Your task to perform on an android device: open app "ColorNote Notepad Notes" (install if not already installed) and enter user name: "unbridled@gmail.com" and password: "regularly" Image 0: 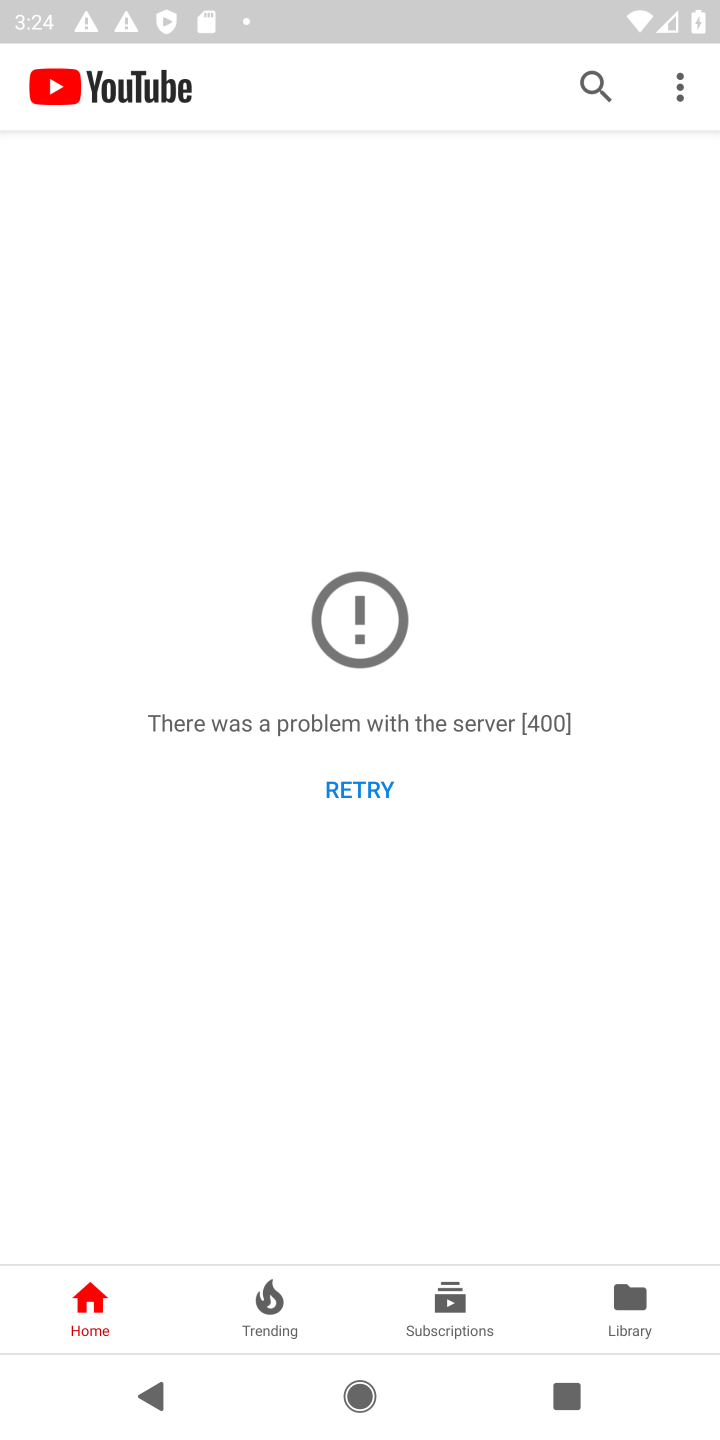
Step 0: press home button
Your task to perform on an android device: open app "ColorNote Notepad Notes" (install if not already installed) and enter user name: "unbridled@gmail.com" and password: "regularly" Image 1: 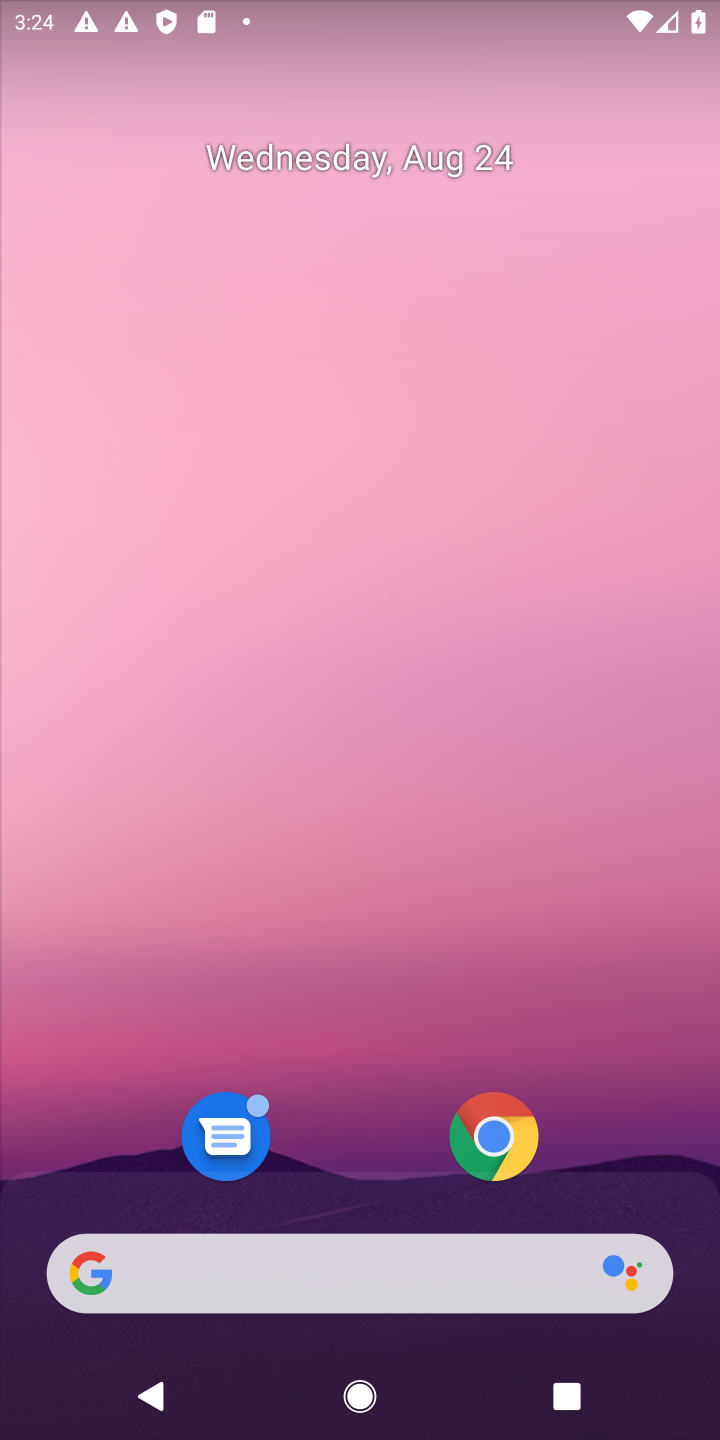
Step 1: drag from (339, 10) to (431, 101)
Your task to perform on an android device: open app "ColorNote Notepad Notes" (install if not already installed) and enter user name: "unbridled@gmail.com" and password: "regularly" Image 2: 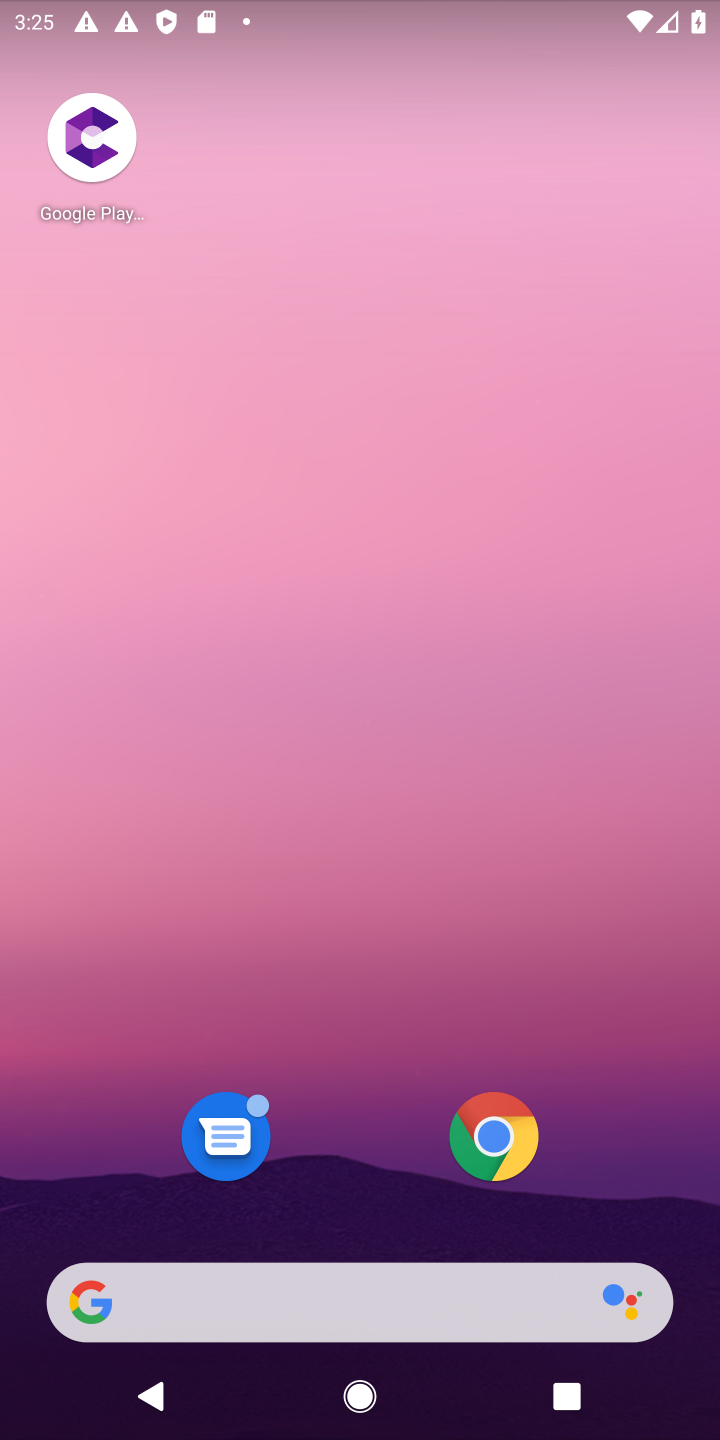
Step 2: drag from (293, 10) to (293, 125)
Your task to perform on an android device: open app "ColorNote Notepad Notes" (install if not already installed) and enter user name: "unbridled@gmail.com" and password: "regularly" Image 3: 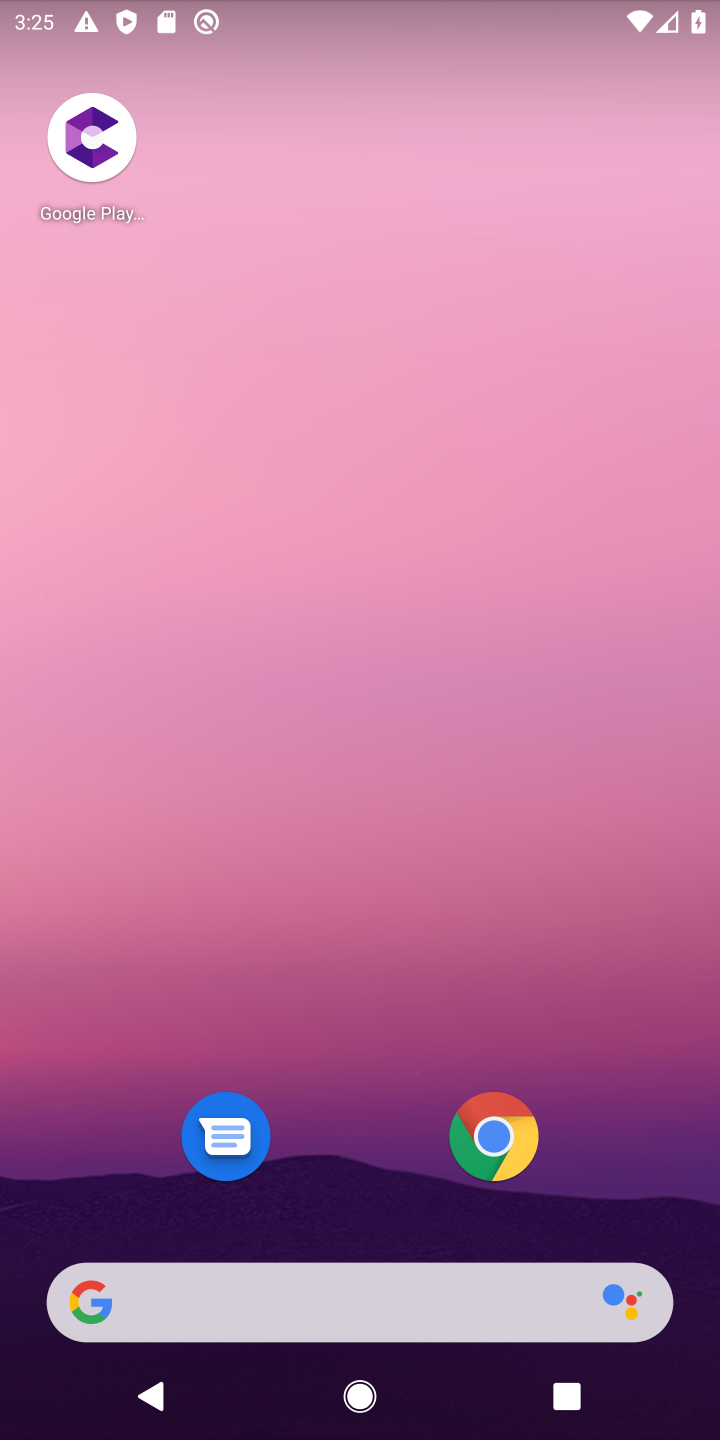
Step 3: drag from (326, 38) to (359, 144)
Your task to perform on an android device: open app "ColorNote Notepad Notes" (install if not already installed) and enter user name: "unbridled@gmail.com" and password: "regularly" Image 4: 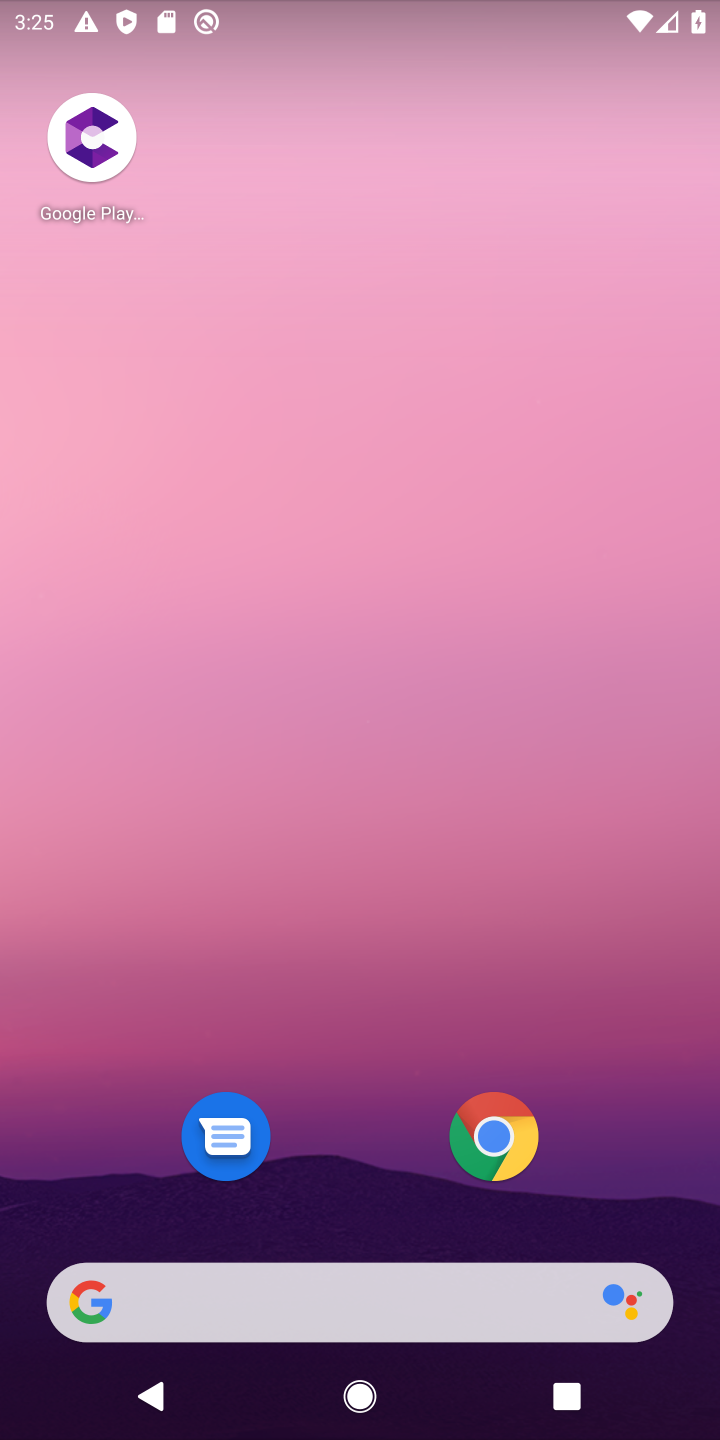
Step 4: drag from (338, 120) to (328, 248)
Your task to perform on an android device: open app "ColorNote Notepad Notes" (install if not already installed) and enter user name: "unbridled@gmail.com" and password: "regularly" Image 5: 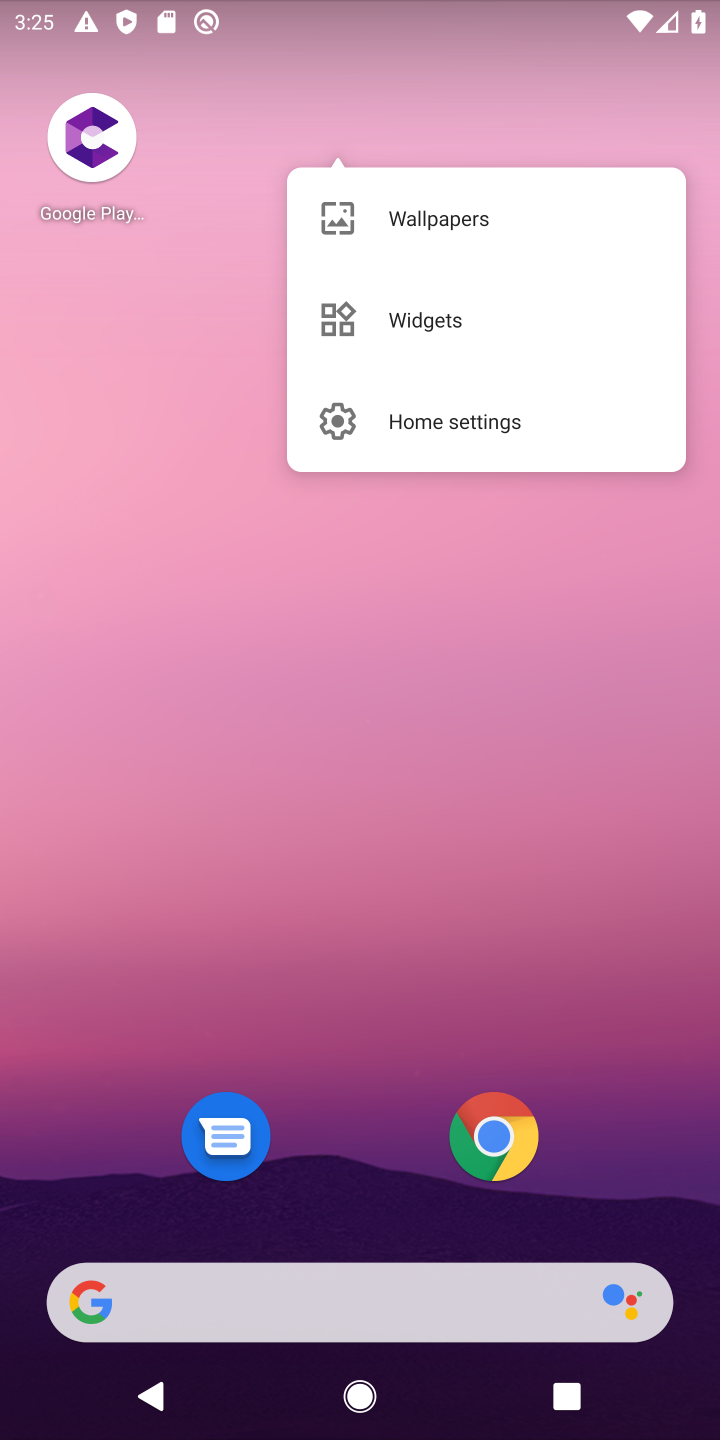
Step 5: click (379, 1205)
Your task to perform on an android device: open app "ColorNote Notepad Notes" (install if not already installed) and enter user name: "unbridled@gmail.com" and password: "regularly" Image 6: 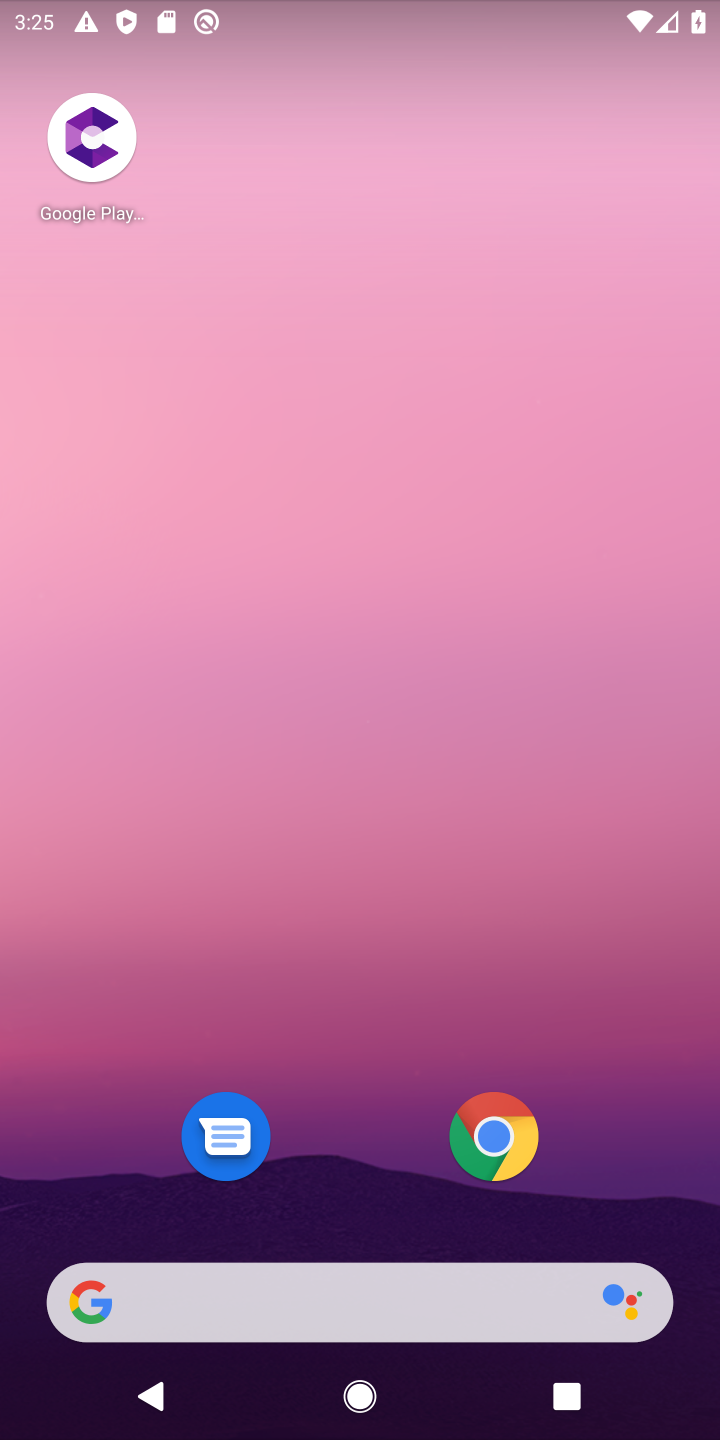
Step 6: drag from (379, 1179) to (367, 96)
Your task to perform on an android device: open app "ColorNote Notepad Notes" (install if not already installed) and enter user name: "unbridled@gmail.com" and password: "regularly" Image 7: 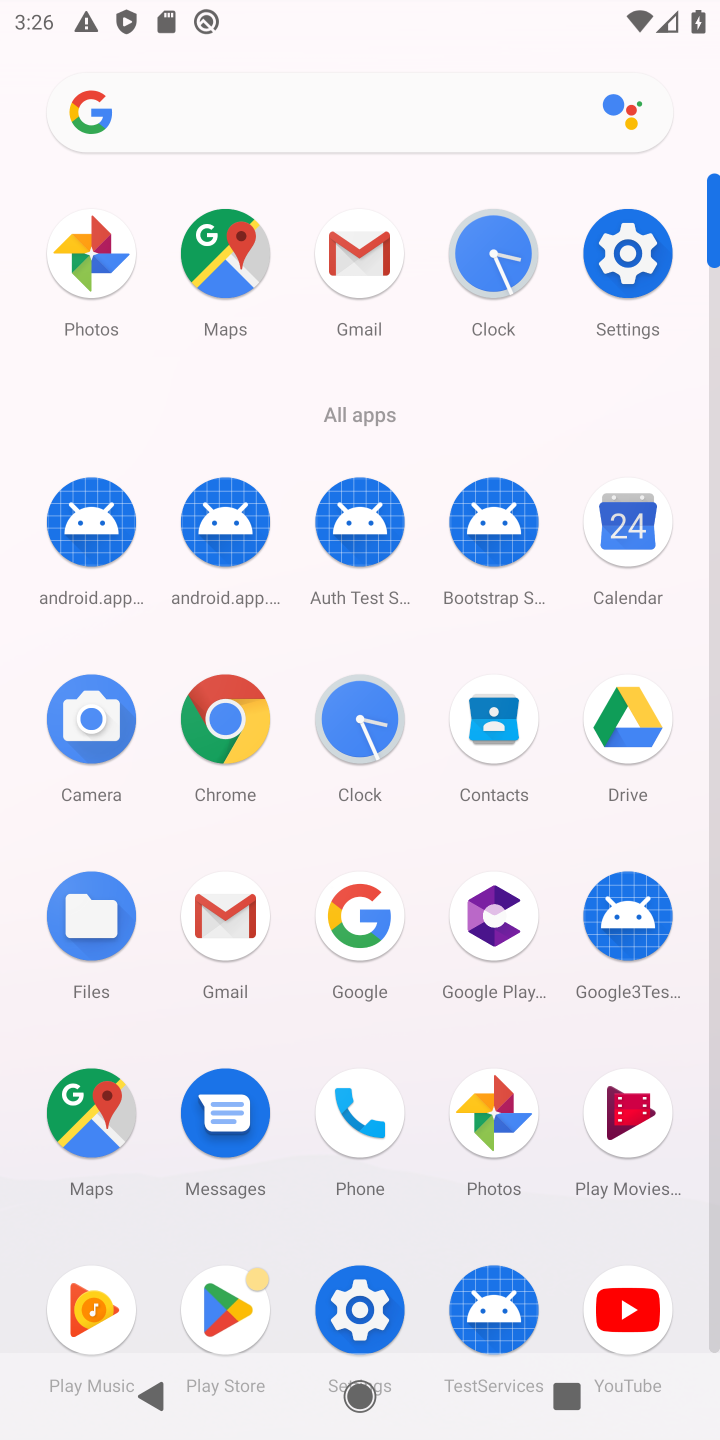
Step 7: click (203, 1297)
Your task to perform on an android device: open app "ColorNote Notepad Notes" (install if not already installed) and enter user name: "unbridled@gmail.com" and password: "regularly" Image 8: 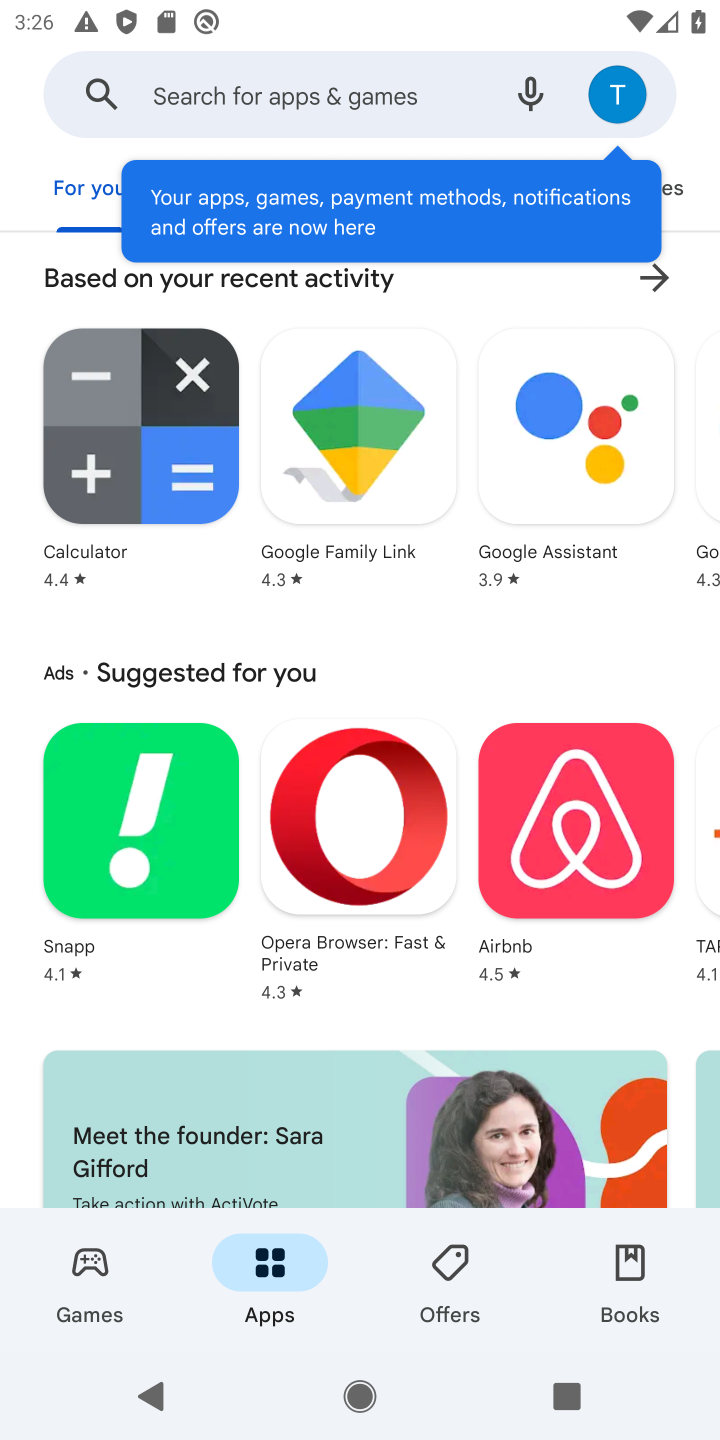
Step 8: click (359, 65)
Your task to perform on an android device: open app "ColorNote Notepad Notes" (install if not already installed) and enter user name: "unbridled@gmail.com" and password: "regularly" Image 9: 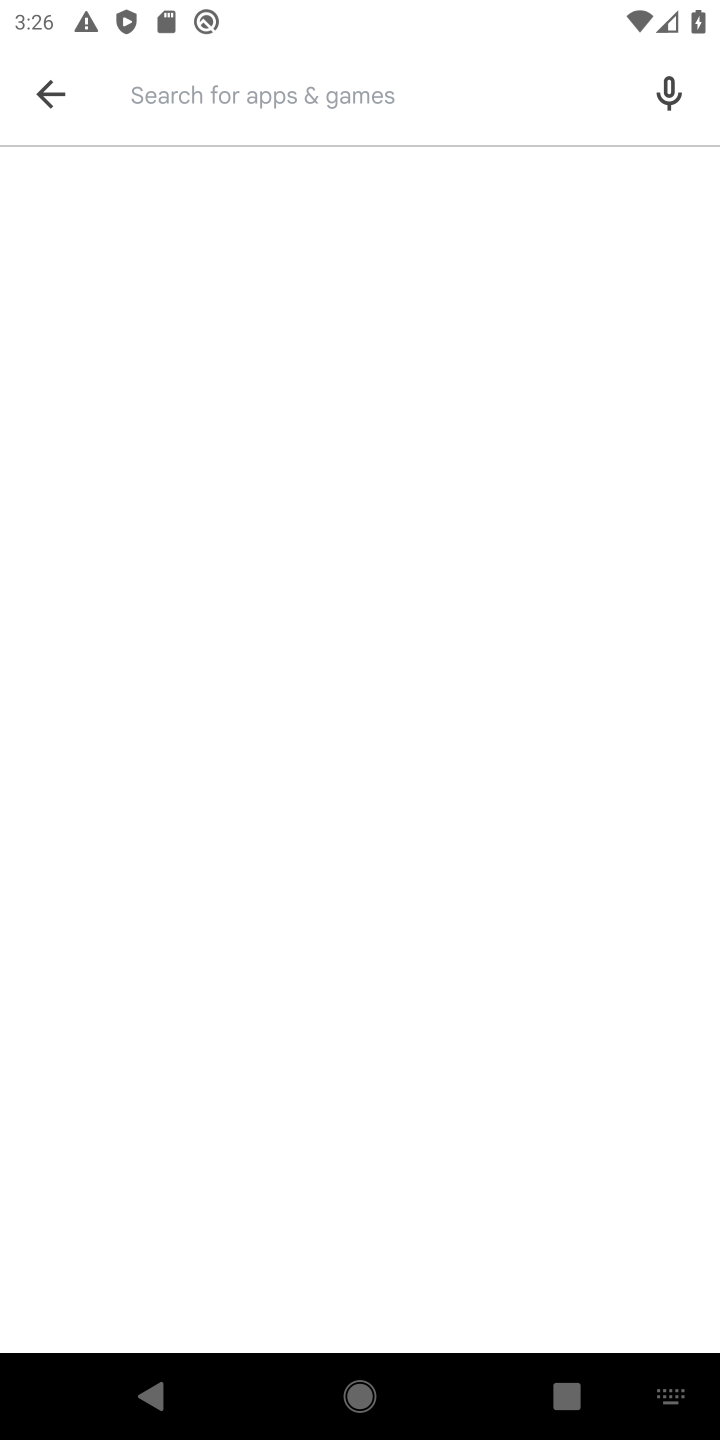
Step 9: type "ColorNote Notepad Notes"
Your task to perform on an android device: open app "ColorNote Notepad Notes" (install if not already installed) and enter user name: "unbridled@gmail.com" and password: "regularly" Image 10: 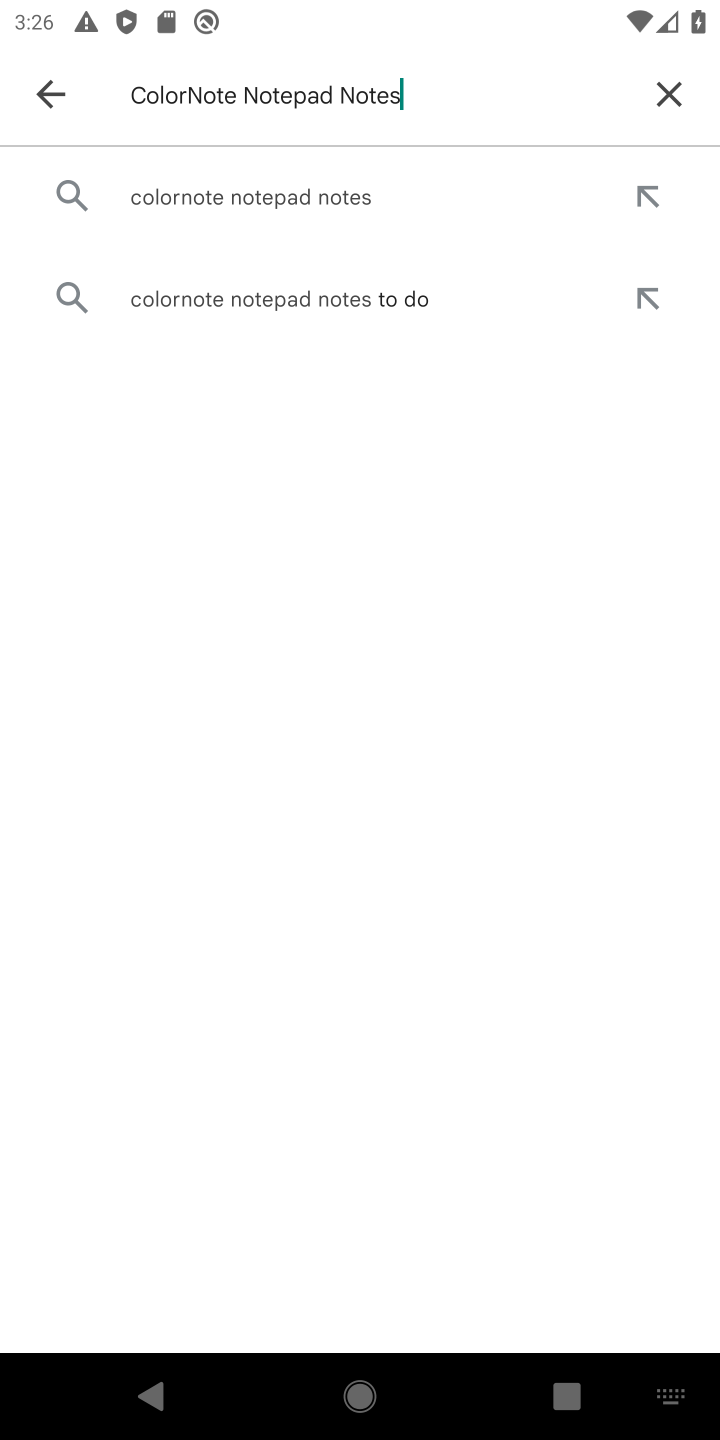
Step 10: click (252, 190)
Your task to perform on an android device: open app "ColorNote Notepad Notes" (install if not already installed) and enter user name: "unbridled@gmail.com" and password: "regularly" Image 11: 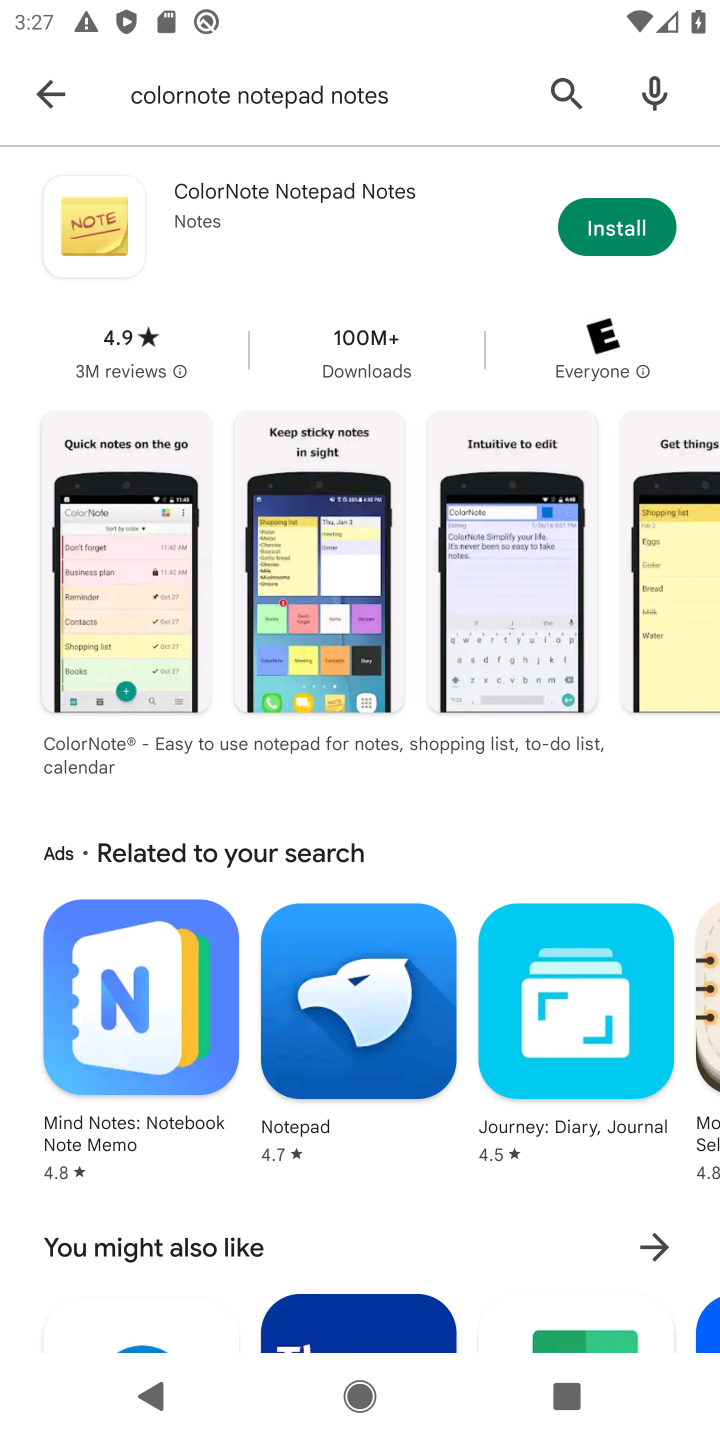
Step 11: click (623, 238)
Your task to perform on an android device: open app "ColorNote Notepad Notes" (install if not already installed) and enter user name: "unbridled@gmail.com" and password: "regularly" Image 12: 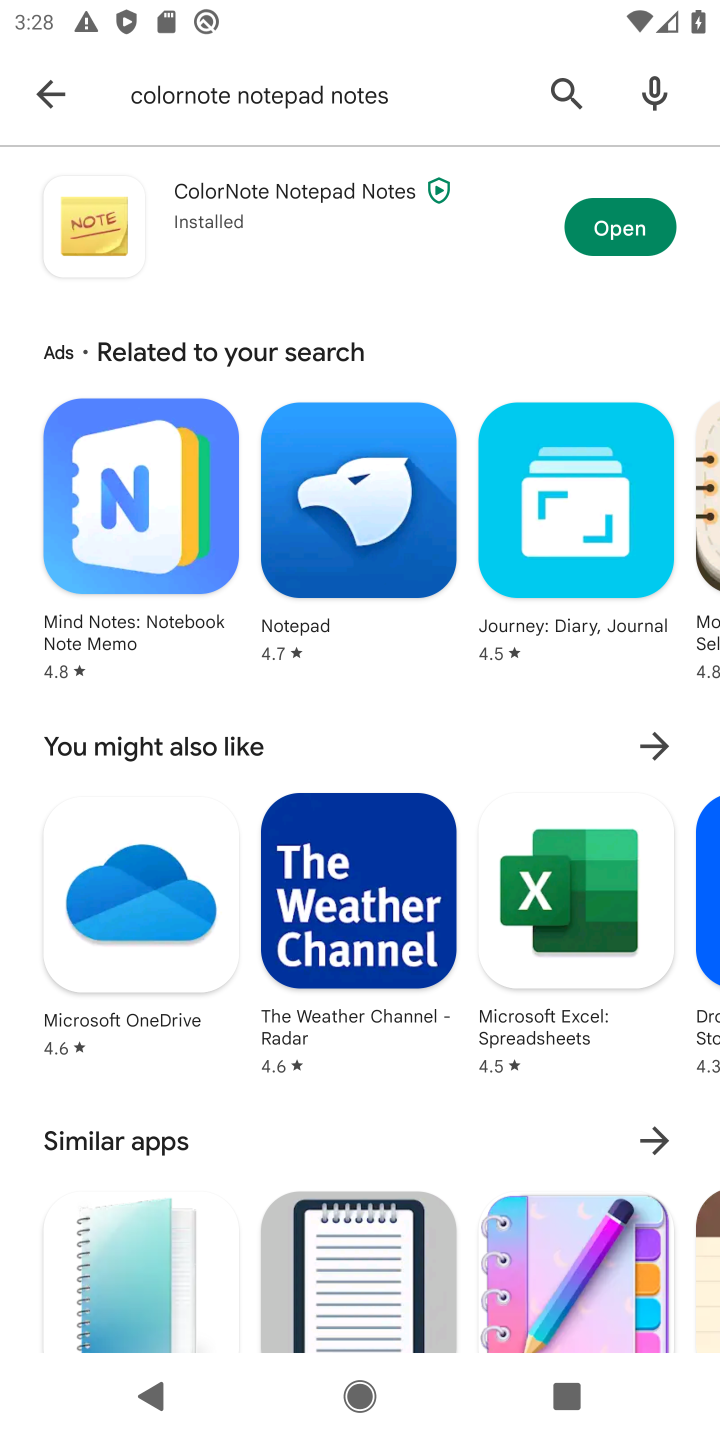
Step 12: click (603, 233)
Your task to perform on an android device: open app "ColorNote Notepad Notes" (install if not already installed) and enter user name: "unbridled@gmail.com" and password: "regularly" Image 13: 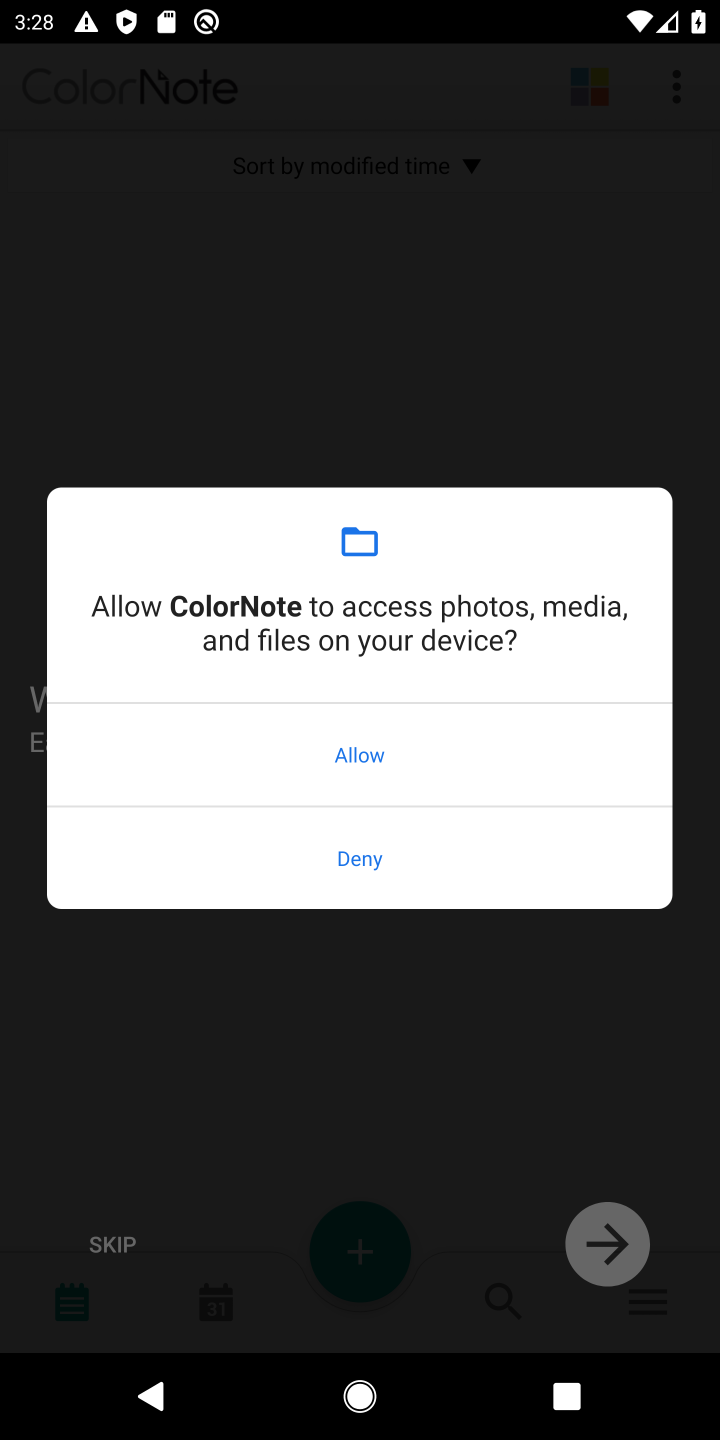
Step 13: click (349, 742)
Your task to perform on an android device: open app "ColorNote Notepad Notes" (install if not already installed) and enter user name: "unbridled@gmail.com" and password: "regularly" Image 14: 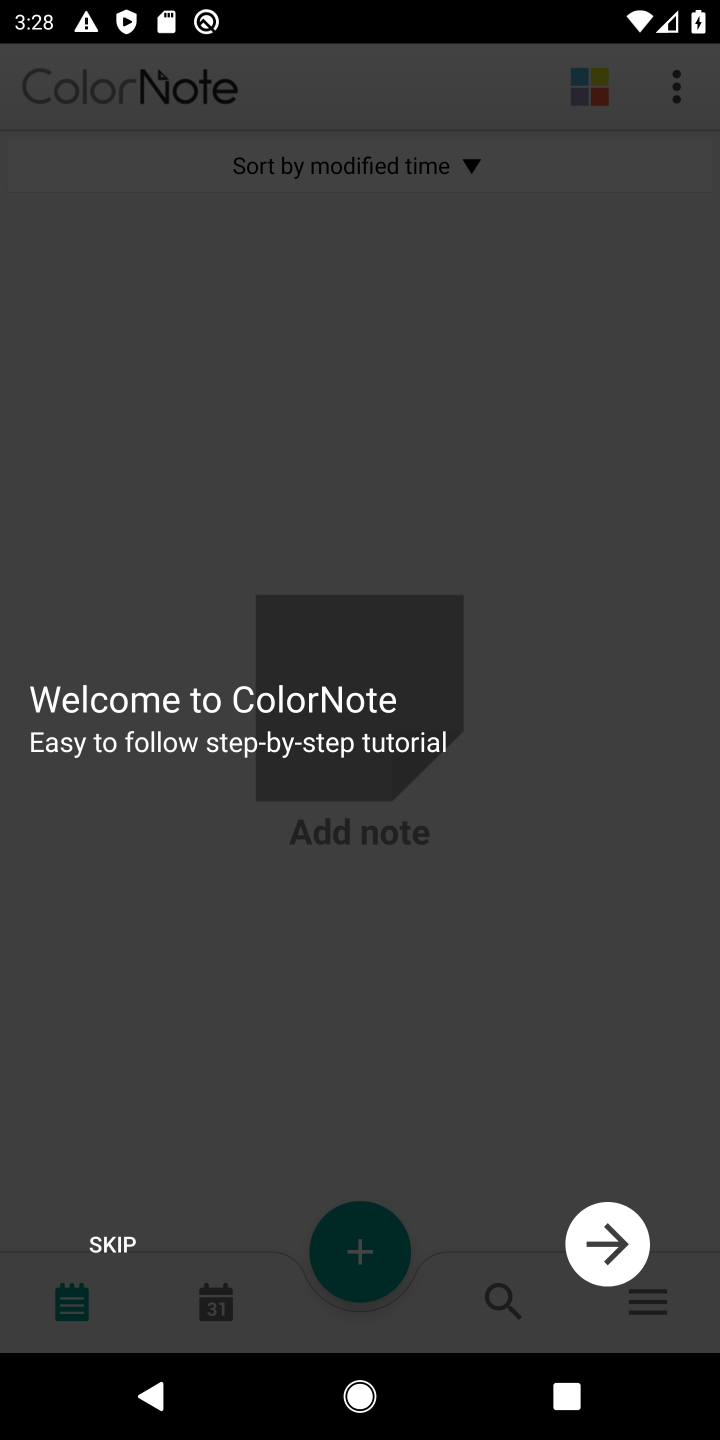
Step 14: task complete